Your task to perform on an android device: Go to Google Image 0: 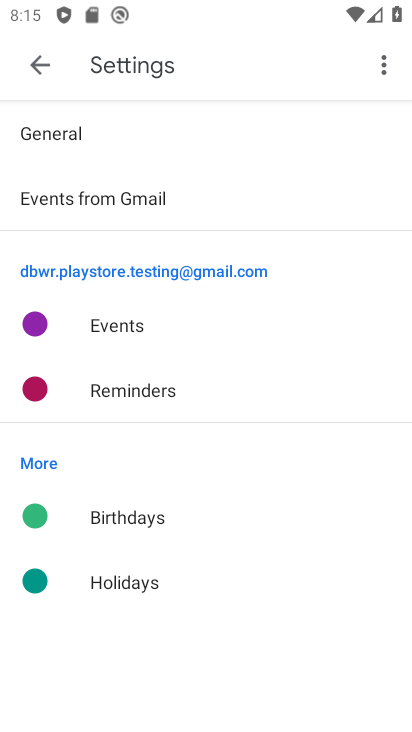
Step 0: click (318, 109)
Your task to perform on an android device: Go to Google Image 1: 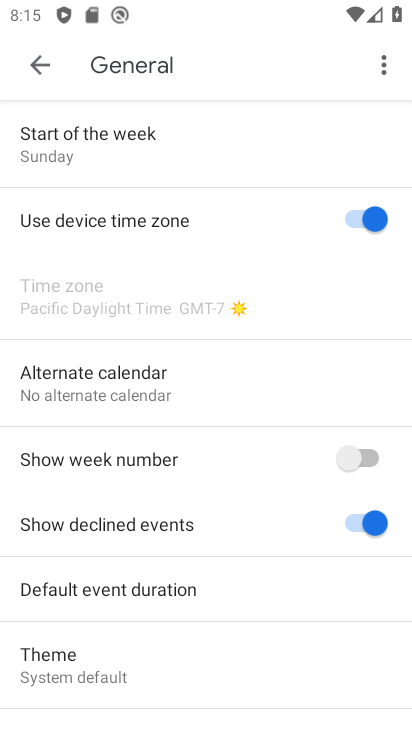
Step 1: press home button
Your task to perform on an android device: Go to Google Image 2: 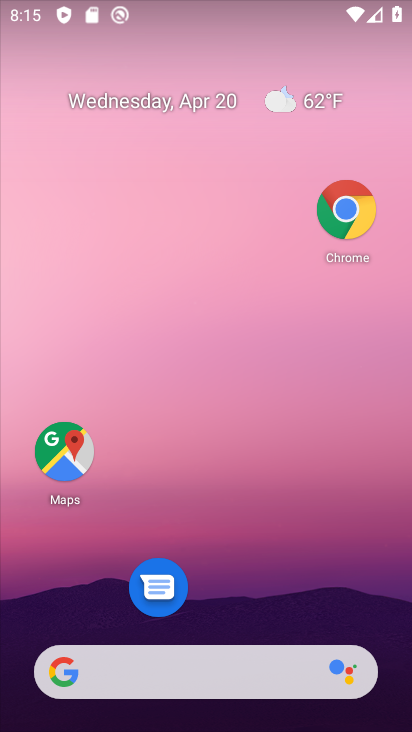
Step 2: click (137, 676)
Your task to perform on an android device: Go to Google Image 3: 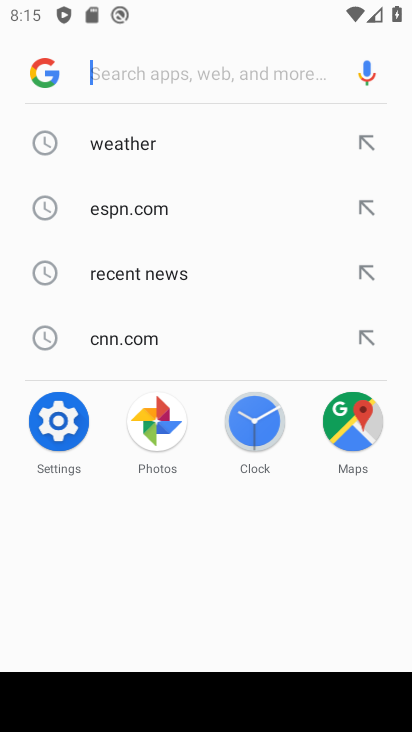
Step 3: click (23, 75)
Your task to perform on an android device: Go to Google Image 4: 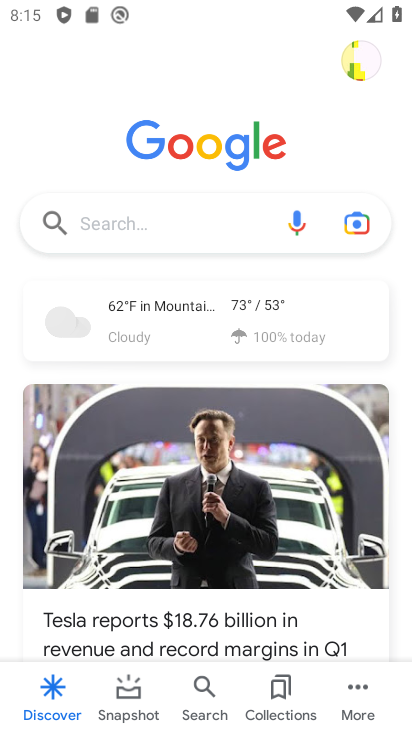
Step 4: task complete